Your task to perform on an android device: Is it going to rain tomorrow? Image 0: 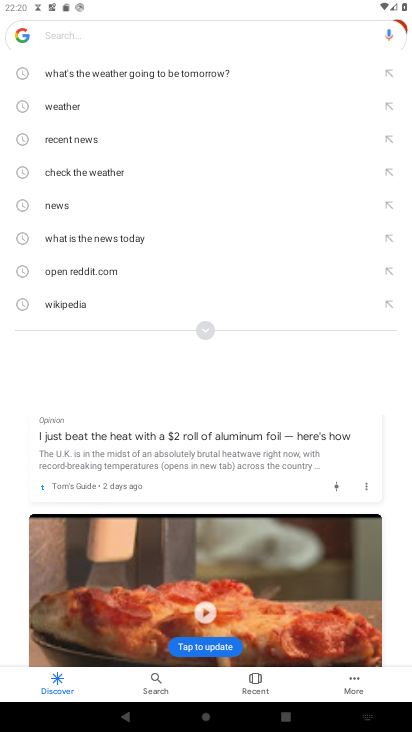
Step 0: press home button
Your task to perform on an android device: Is it going to rain tomorrow? Image 1: 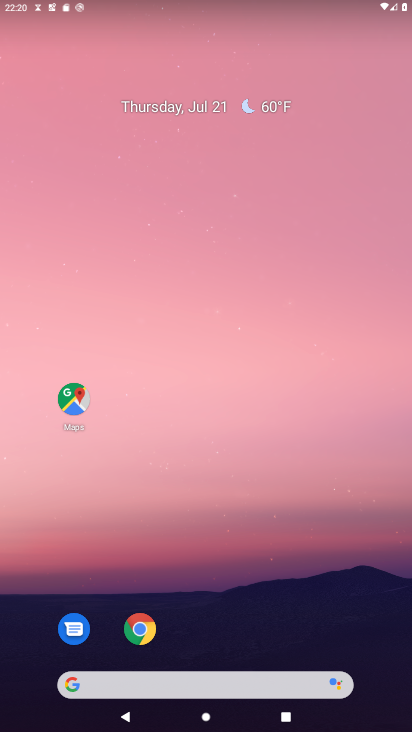
Step 1: drag from (214, 629) to (209, 285)
Your task to perform on an android device: Is it going to rain tomorrow? Image 2: 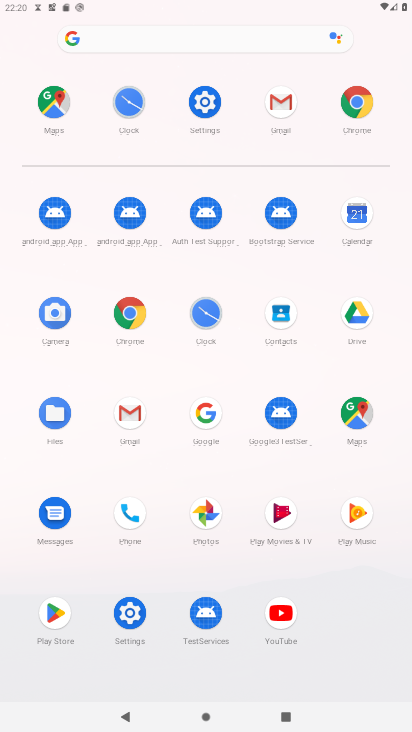
Step 2: click (355, 103)
Your task to perform on an android device: Is it going to rain tomorrow? Image 3: 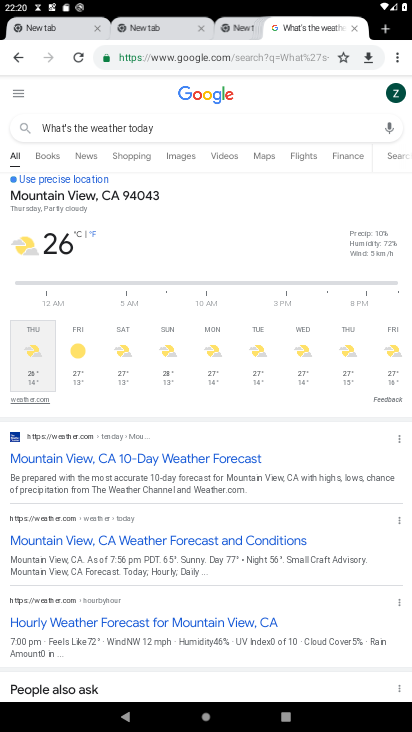
Step 3: click (390, 29)
Your task to perform on an android device: Is it going to rain tomorrow? Image 4: 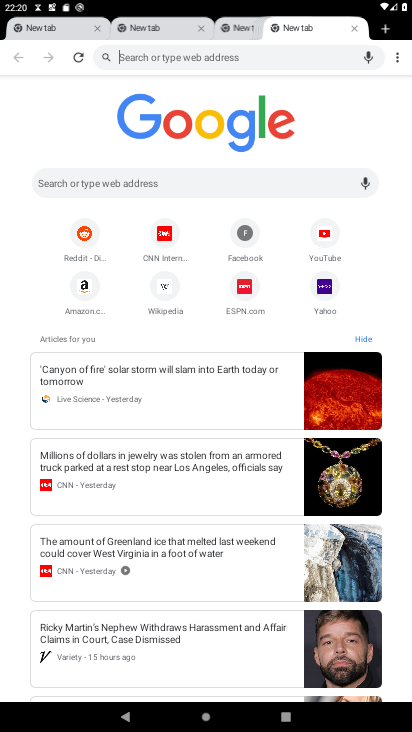
Step 4: click (203, 177)
Your task to perform on an android device: Is it going to rain tomorrow? Image 5: 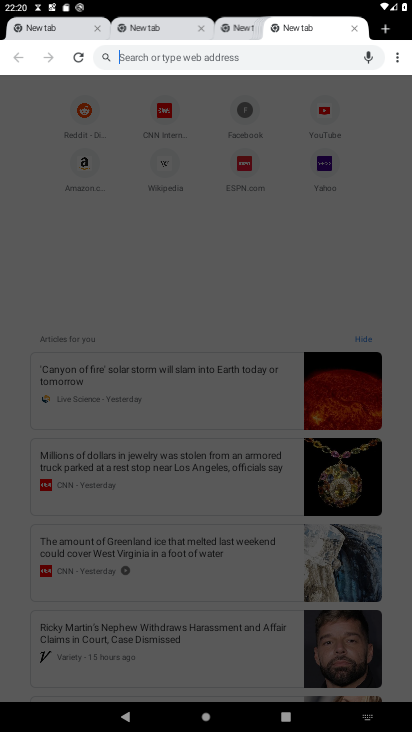
Step 5: type "Is it going to rain tomorrow "
Your task to perform on an android device: Is it going to rain tomorrow? Image 6: 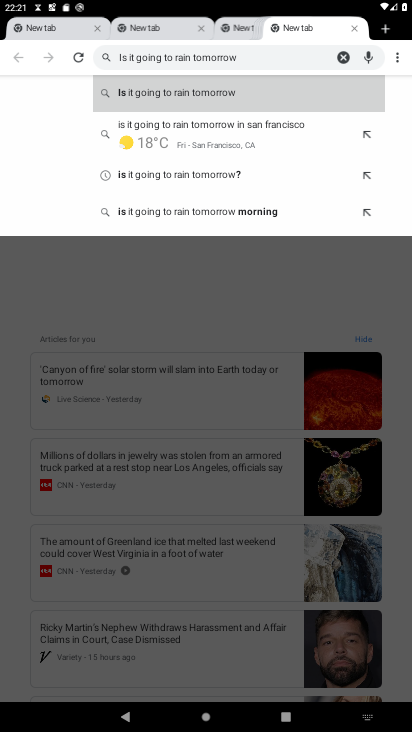
Step 6: click (241, 98)
Your task to perform on an android device: Is it going to rain tomorrow? Image 7: 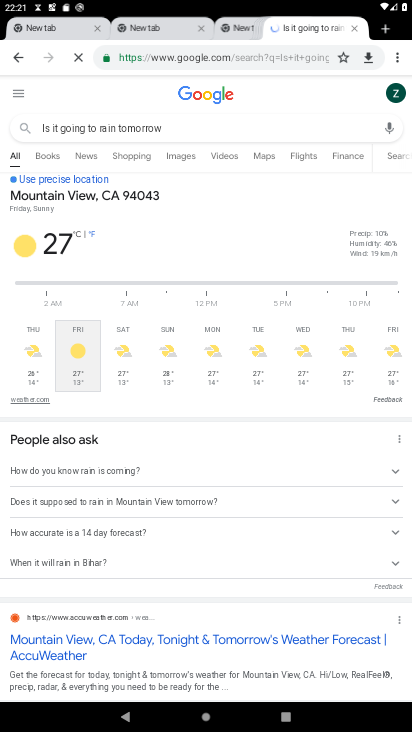
Step 7: task complete